Your task to perform on an android device: open app "DuckDuckGo Privacy Browser" (install if not already installed) Image 0: 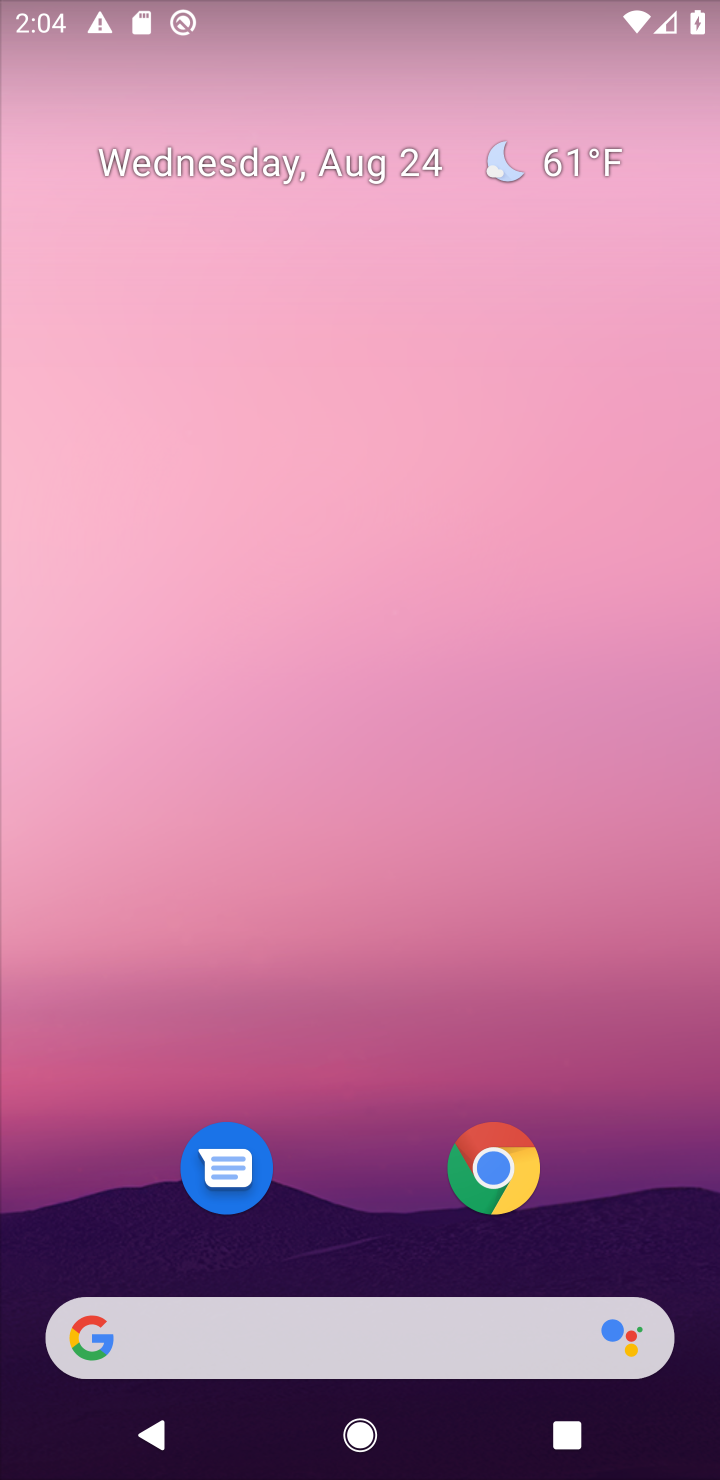
Step 0: drag from (591, 1001) to (650, 320)
Your task to perform on an android device: open app "DuckDuckGo Privacy Browser" (install if not already installed) Image 1: 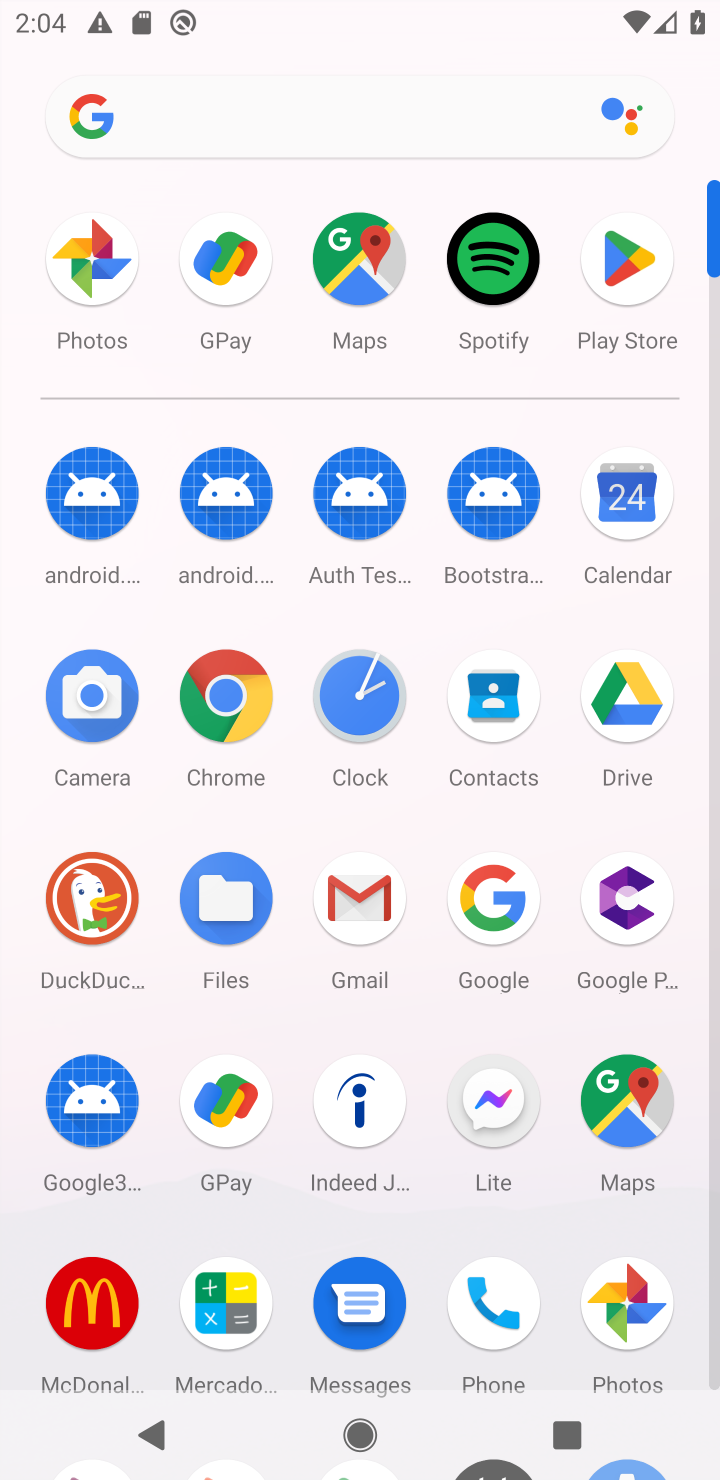
Step 1: click (620, 256)
Your task to perform on an android device: open app "DuckDuckGo Privacy Browser" (install if not already installed) Image 2: 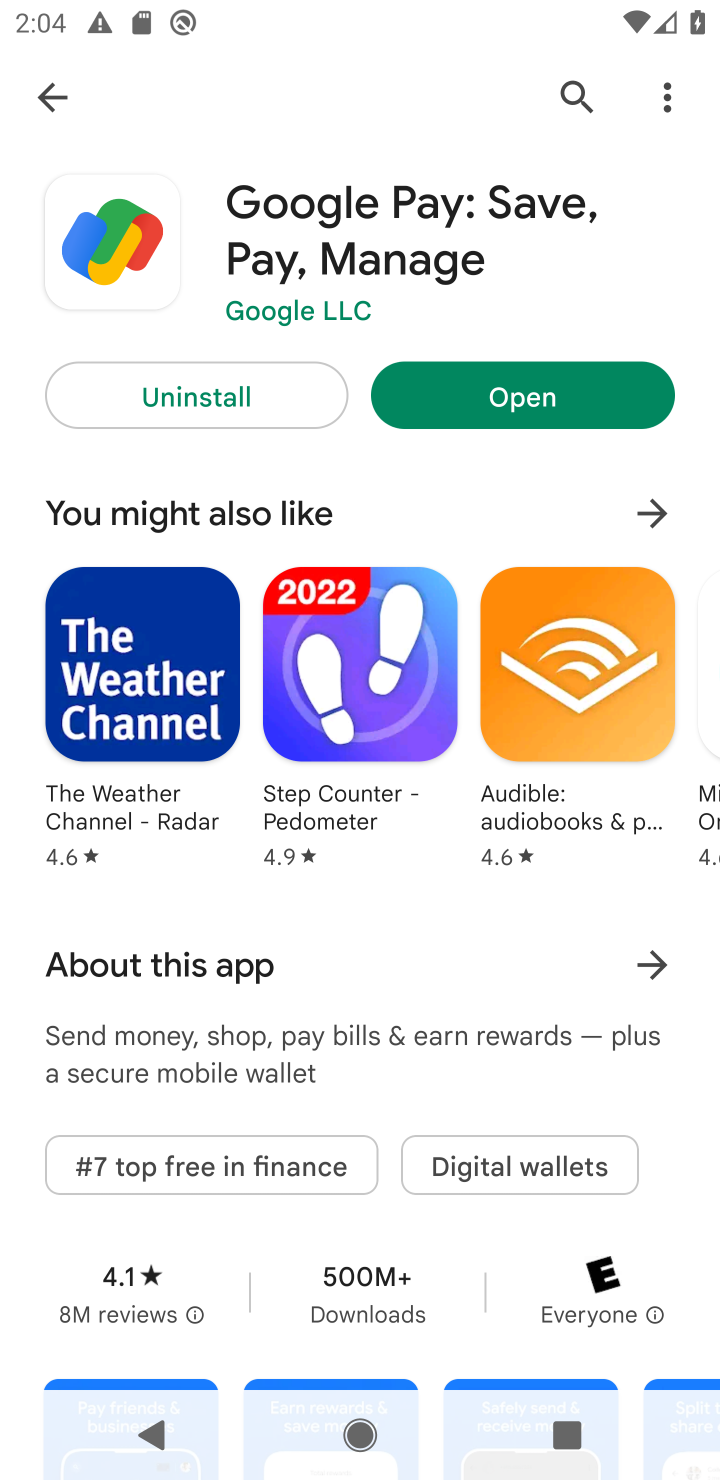
Step 2: click (566, 80)
Your task to perform on an android device: open app "DuckDuckGo Privacy Browser" (install if not already installed) Image 3: 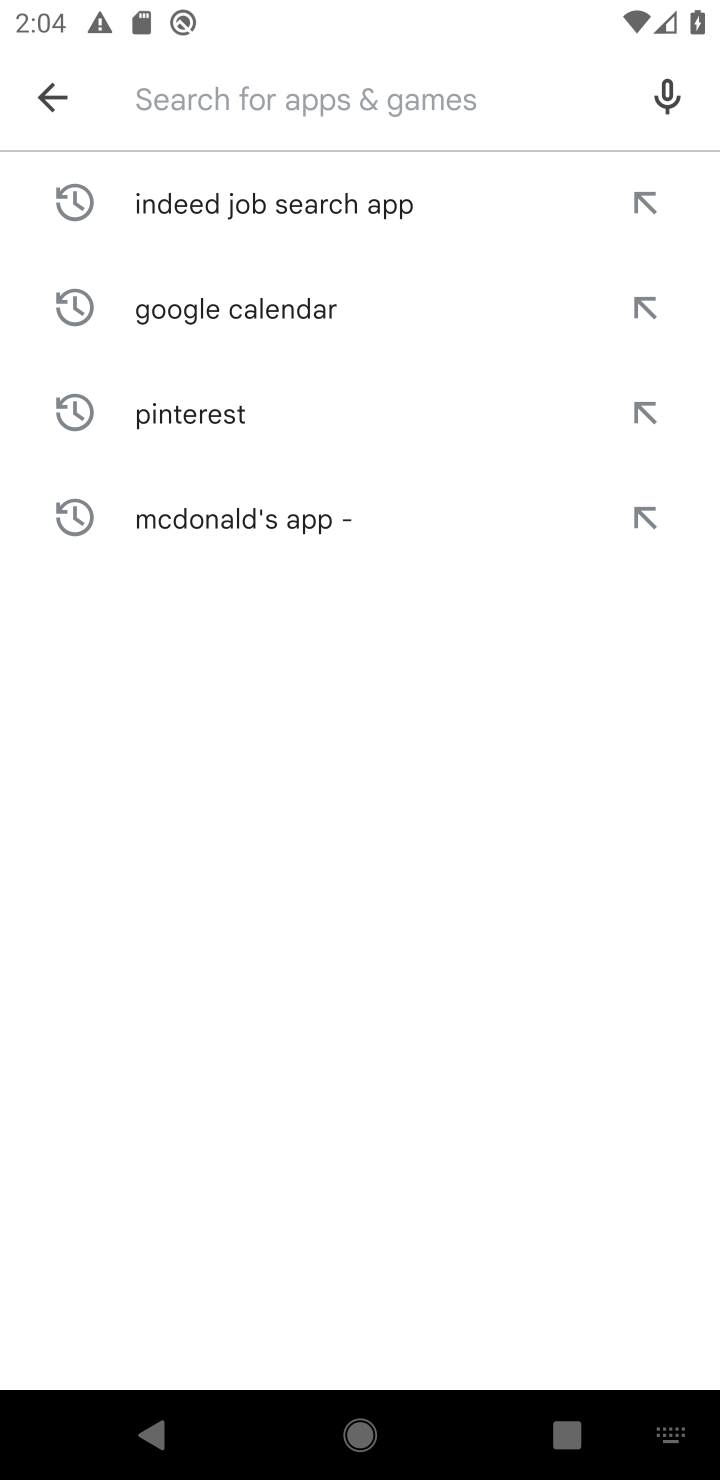
Step 3: type "DuckDuckGo Privacy Browser"
Your task to perform on an android device: open app "DuckDuckGo Privacy Browser" (install if not already installed) Image 4: 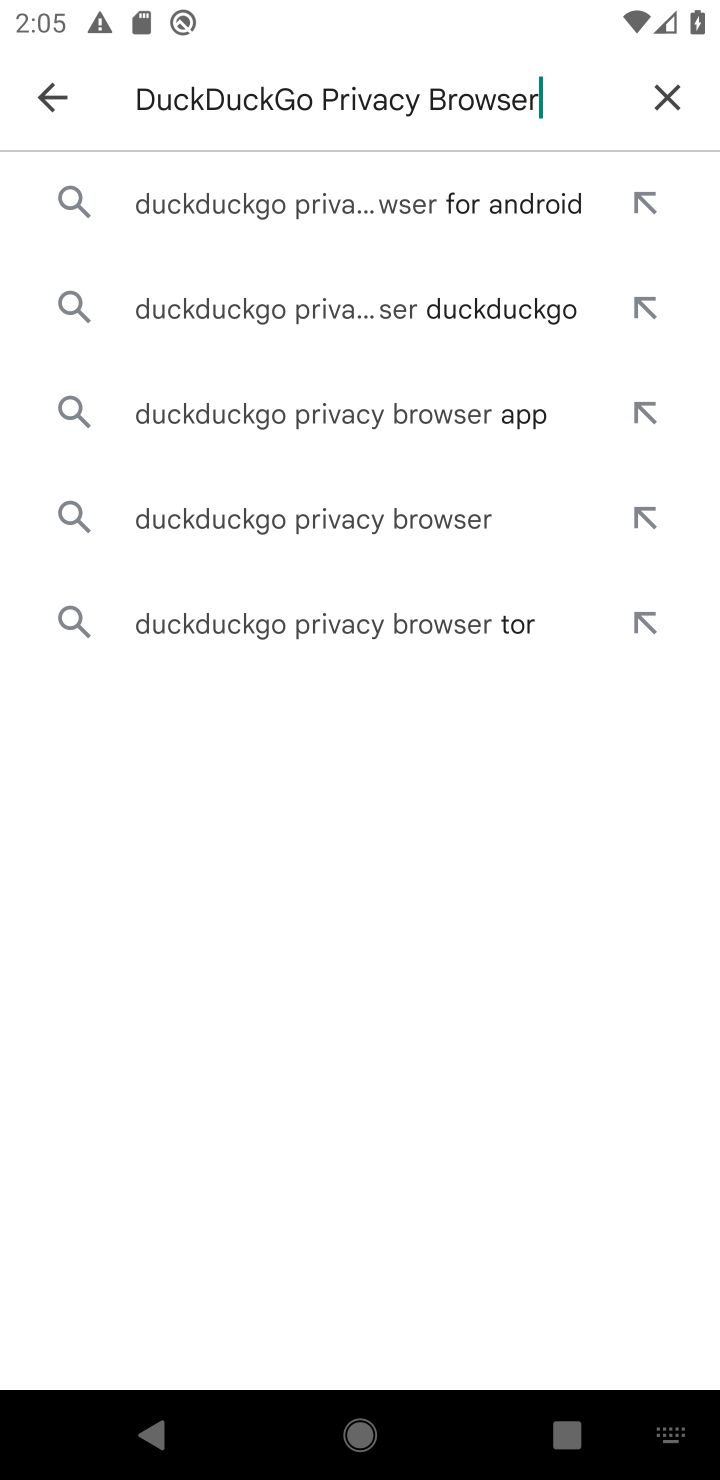
Step 4: click (251, 213)
Your task to perform on an android device: open app "DuckDuckGo Privacy Browser" (install if not already installed) Image 5: 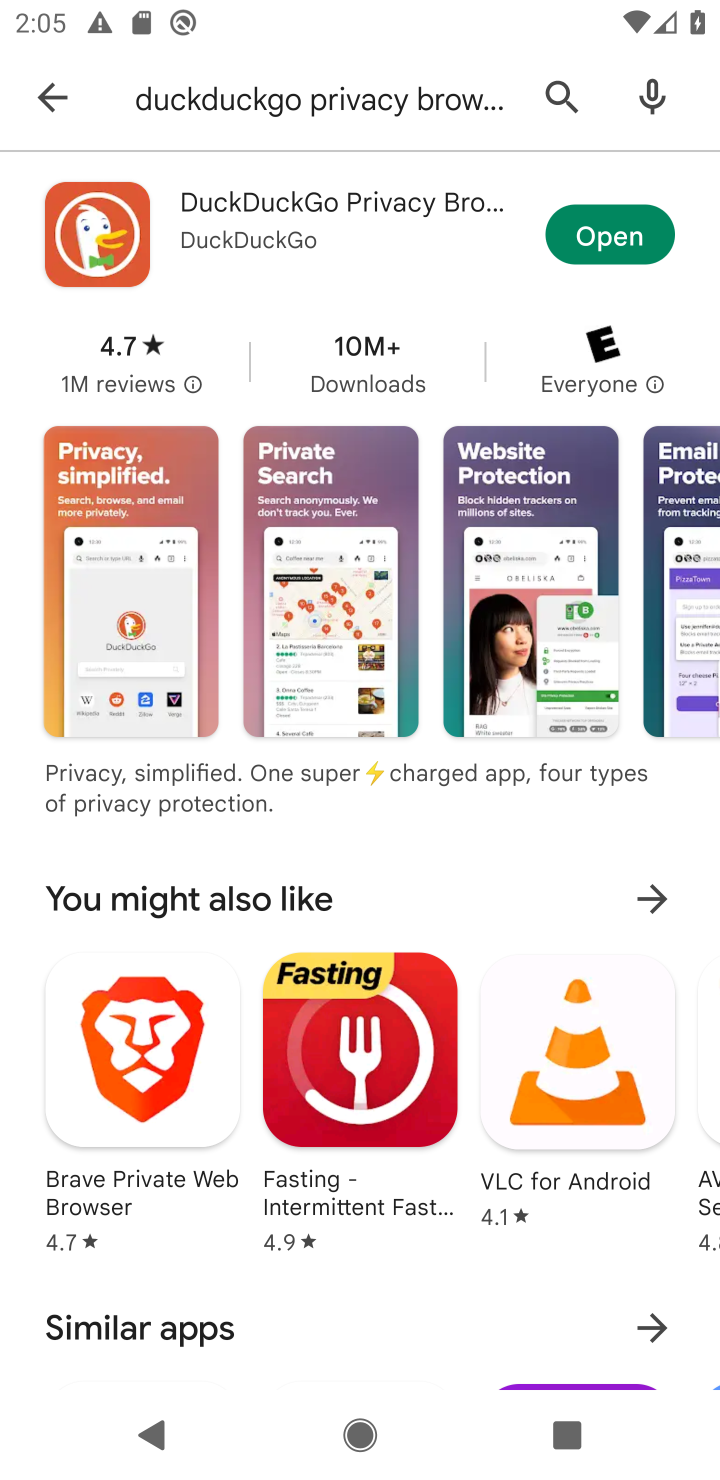
Step 5: click (608, 235)
Your task to perform on an android device: open app "DuckDuckGo Privacy Browser" (install if not already installed) Image 6: 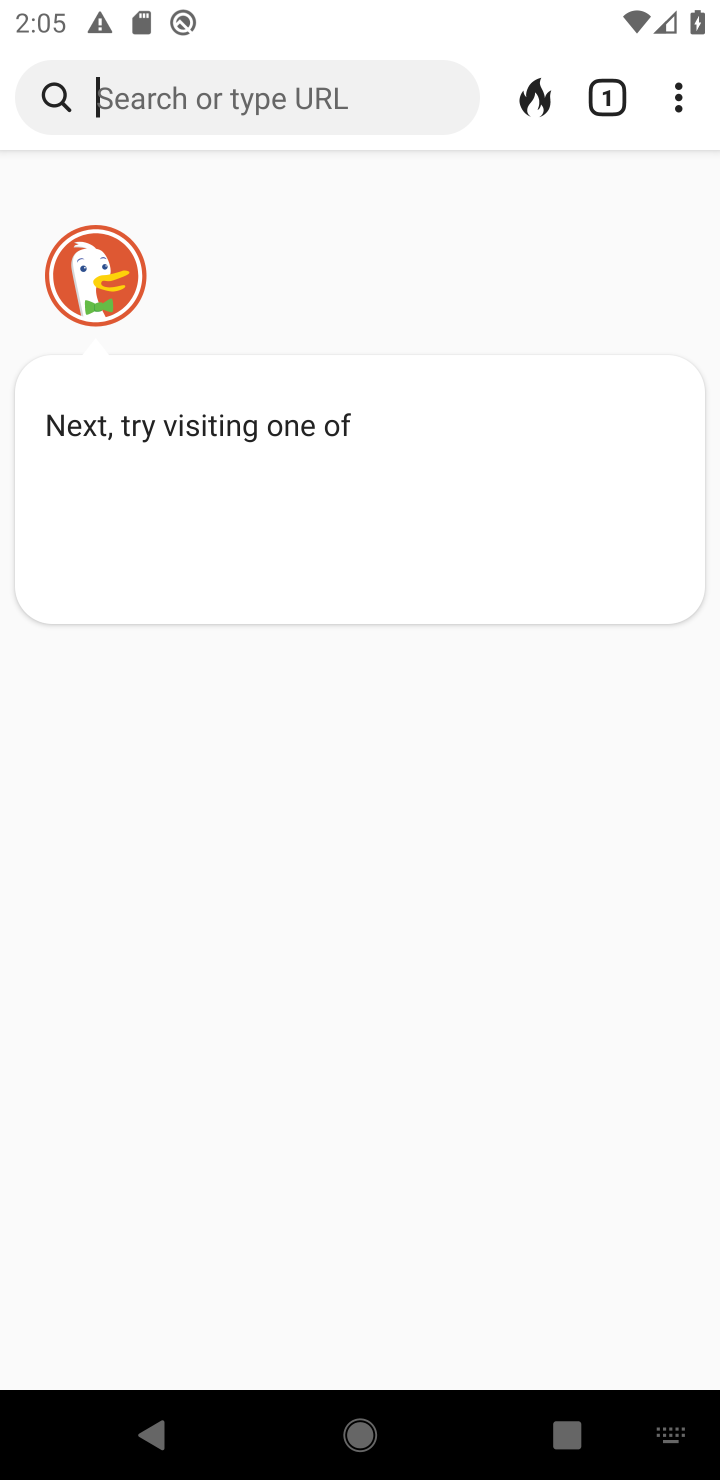
Step 6: task complete